Your task to perform on an android device: Open internet settings Image 0: 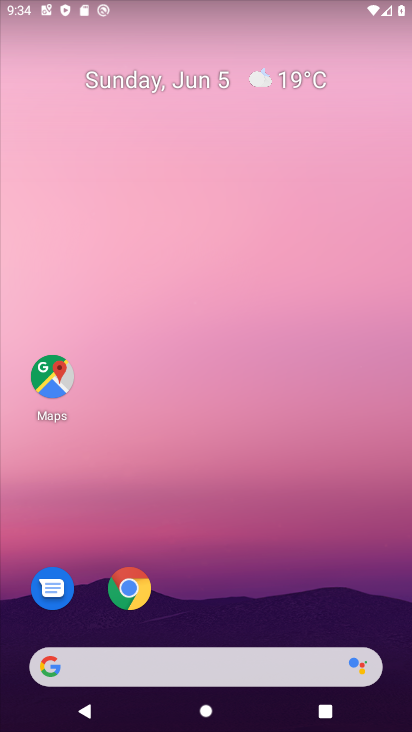
Step 0: drag from (352, 577) to (343, 230)
Your task to perform on an android device: Open internet settings Image 1: 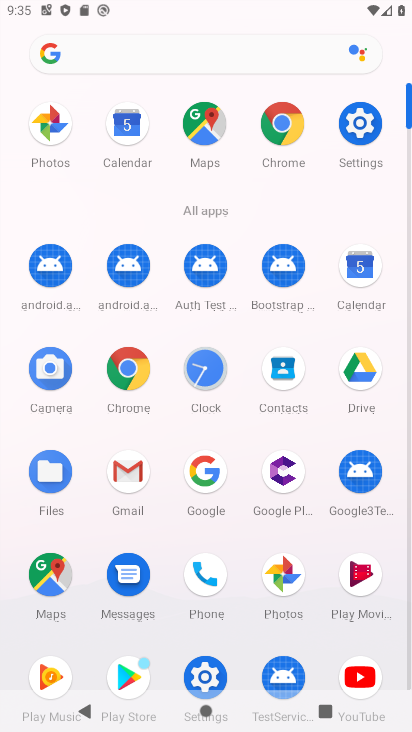
Step 1: click (369, 148)
Your task to perform on an android device: Open internet settings Image 2: 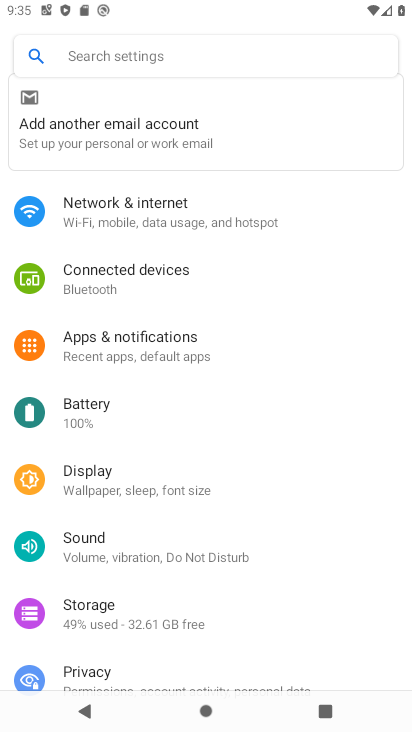
Step 2: drag from (305, 258) to (313, 431)
Your task to perform on an android device: Open internet settings Image 3: 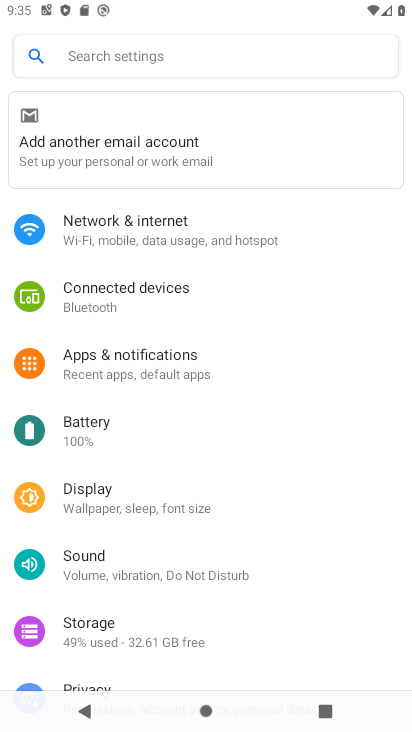
Step 3: drag from (347, 497) to (328, 331)
Your task to perform on an android device: Open internet settings Image 4: 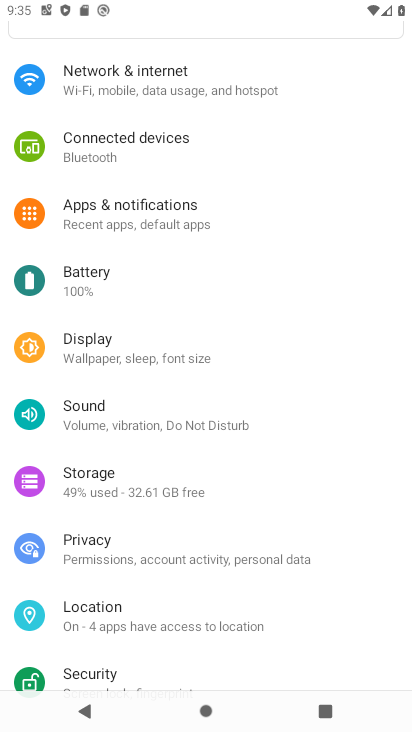
Step 4: drag from (348, 582) to (343, 447)
Your task to perform on an android device: Open internet settings Image 5: 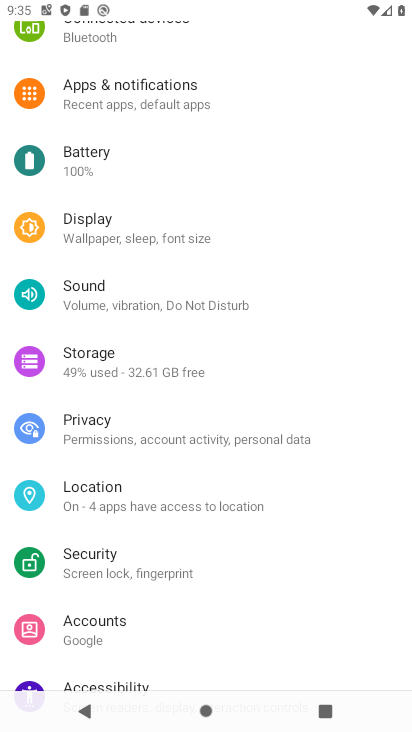
Step 5: drag from (365, 577) to (358, 427)
Your task to perform on an android device: Open internet settings Image 6: 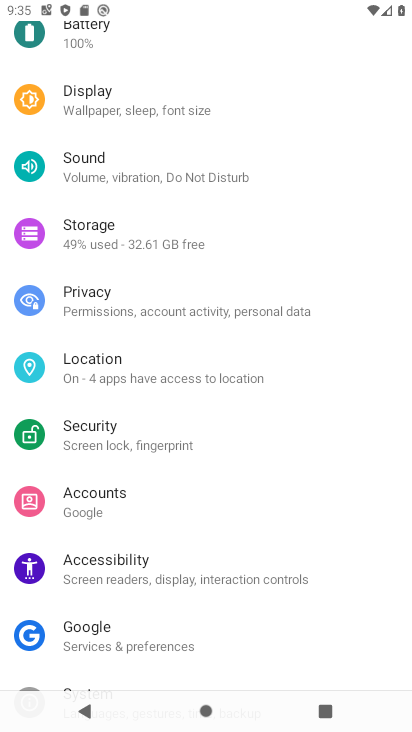
Step 6: drag from (359, 598) to (359, 469)
Your task to perform on an android device: Open internet settings Image 7: 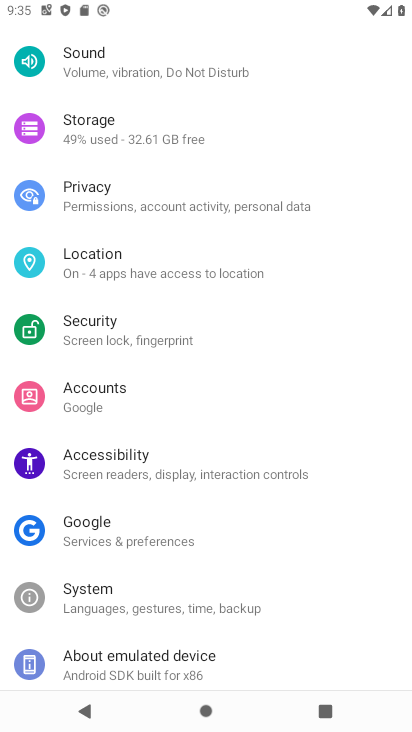
Step 7: drag from (356, 574) to (332, 392)
Your task to perform on an android device: Open internet settings Image 8: 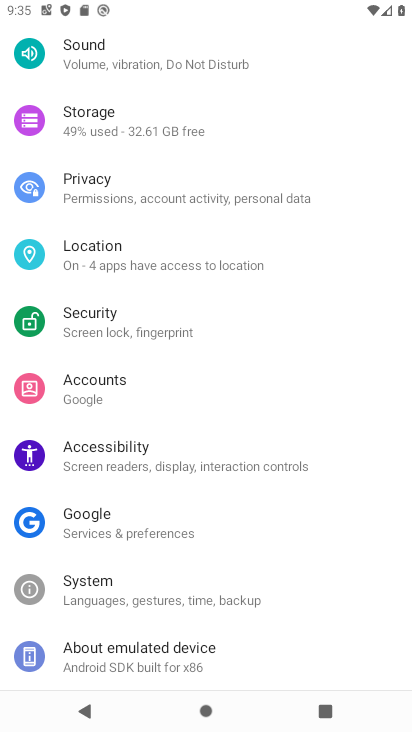
Step 8: drag from (347, 197) to (363, 353)
Your task to perform on an android device: Open internet settings Image 9: 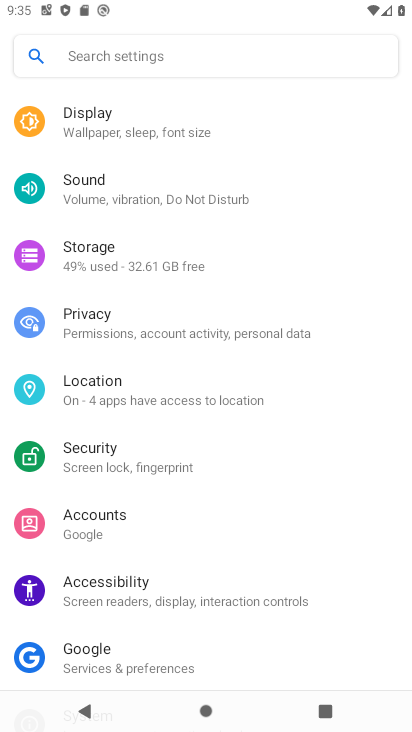
Step 9: drag from (340, 195) to (346, 323)
Your task to perform on an android device: Open internet settings Image 10: 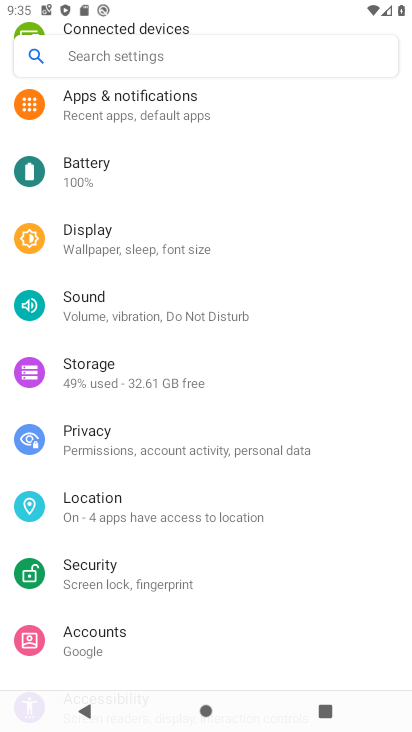
Step 10: drag from (345, 220) to (343, 328)
Your task to perform on an android device: Open internet settings Image 11: 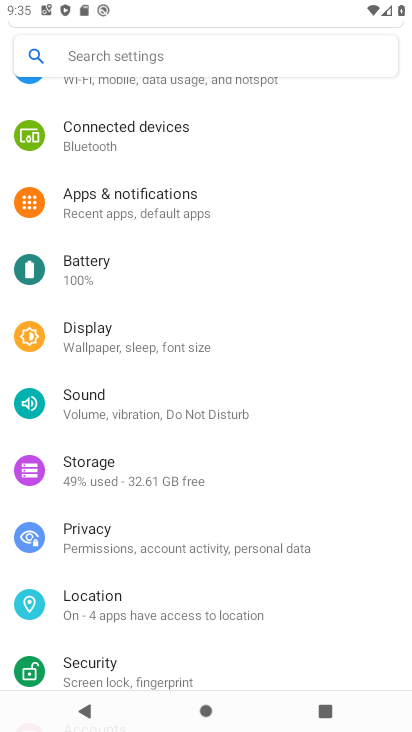
Step 11: drag from (349, 196) to (355, 300)
Your task to perform on an android device: Open internet settings Image 12: 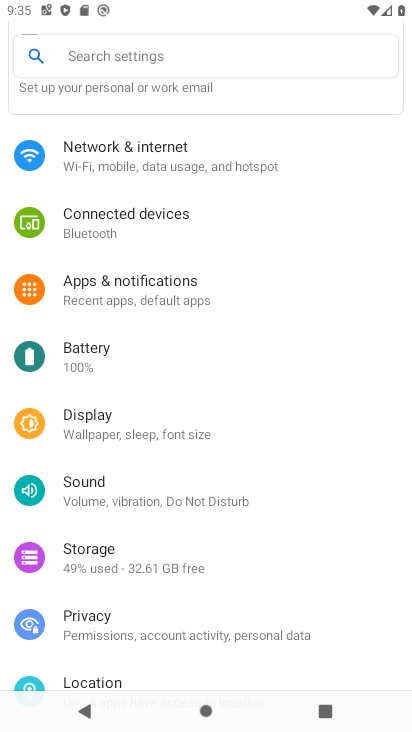
Step 12: drag from (338, 168) to (342, 302)
Your task to perform on an android device: Open internet settings Image 13: 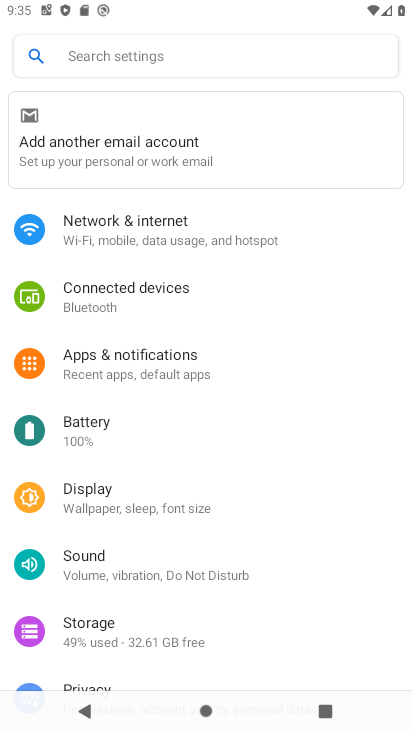
Step 13: click (241, 233)
Your task to perform on an android device: Open internet settings Image 14: 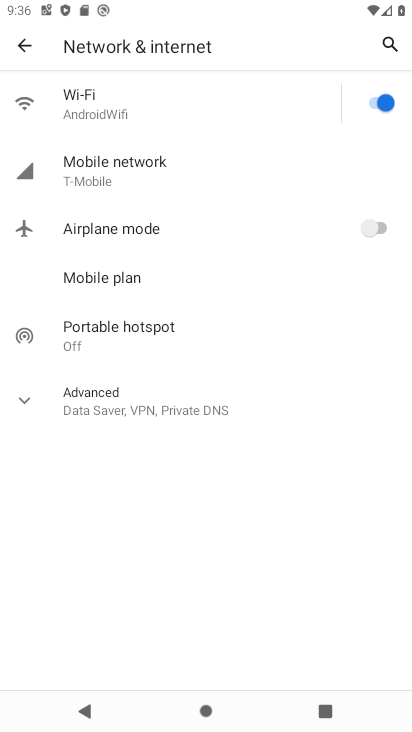
Step 14: task complete